Your task to perform on an android device: see creations saved in the google photos Image 0: 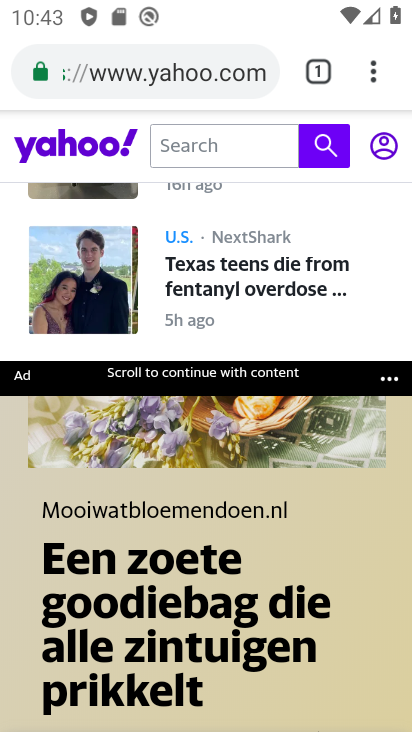
Step 0: press home button
Your task to perform on an android device: see creations saved in the google photos Image 1: 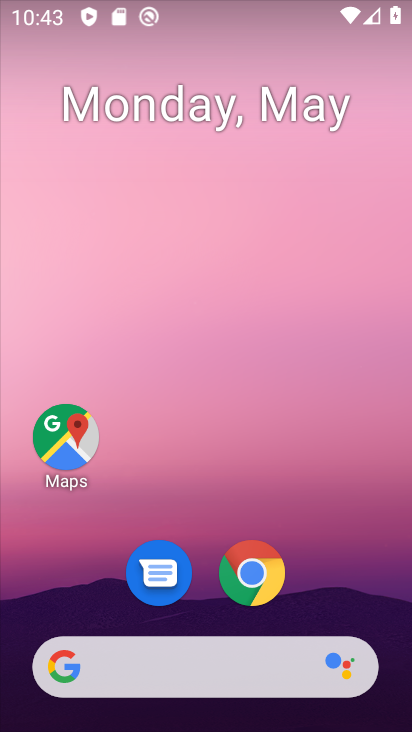
Step 1: drag from (246, 619) to (261, 369)
Your task to perform on an android device: see creations saved in the google photos Image 2: 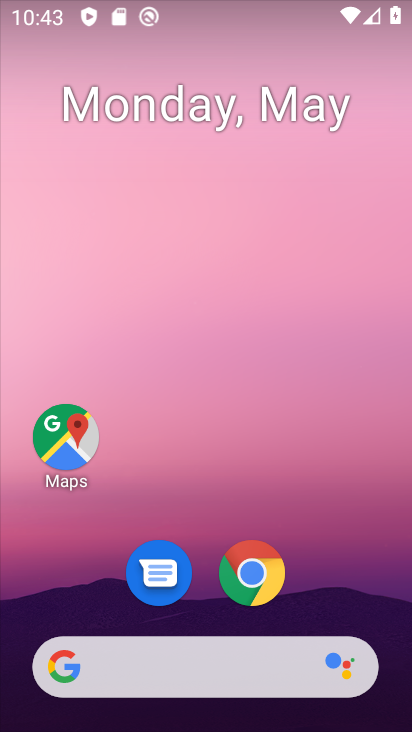
Step 2: drag from (189, 641) to (222, 359)
Your task to perform on an android device: see creations saved in the google photos Image 3: 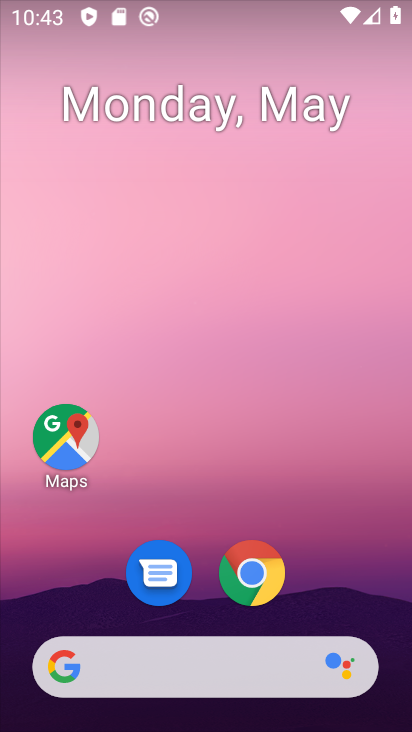
Step 3: drag from (204, 620) to (204, 266)
Your task to perform on an android device: see creations saved in the google photos Image 4: 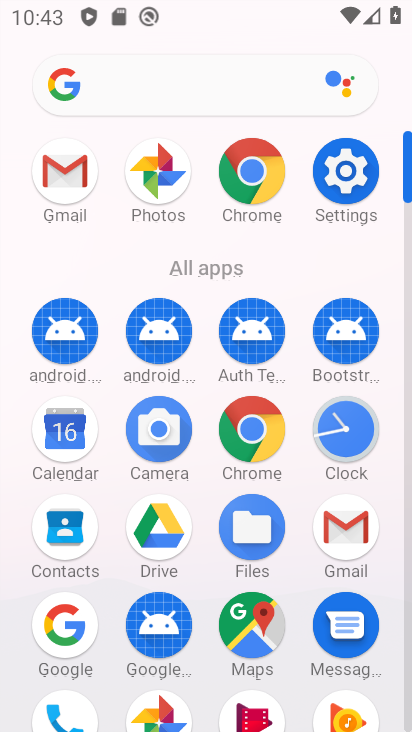
Step 4: click (167, 179)
Your task to perform on an android device: see creations saved in the google photos Image 5: 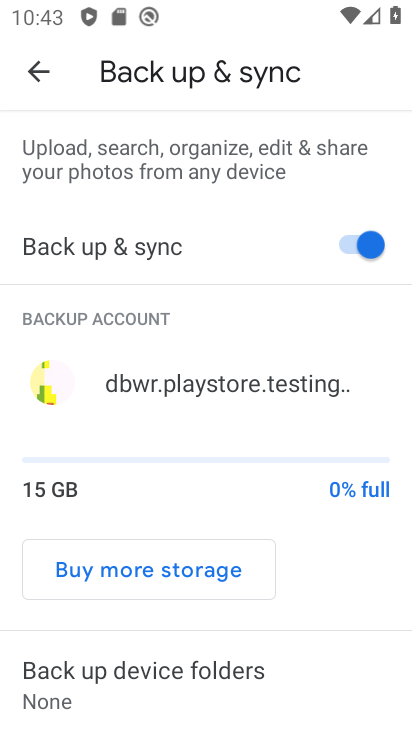
Step 5: click (35, 67)
Your task to perform on an android device: see creations saved in the google photos Image 6: 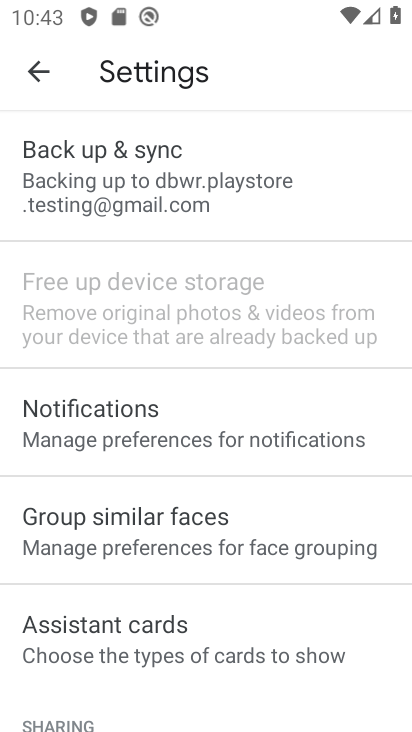
Step 6: press back button
Your task to perform on an android device: see creations saved in the google photos Image 7: 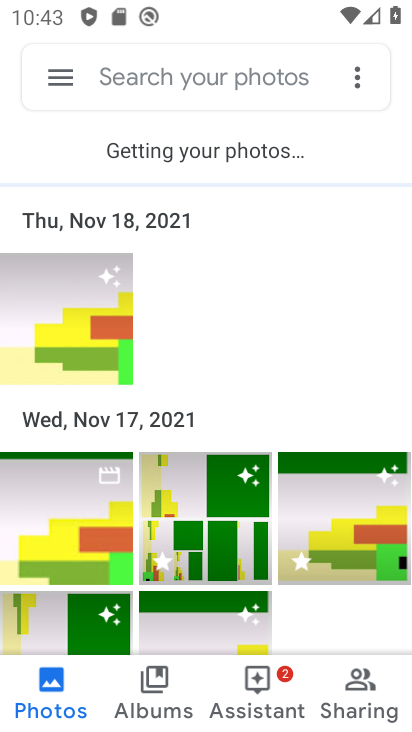
Step 7: click (164, 671)
Your task to perform on an android device: see creations saved in the google photos Image 8: 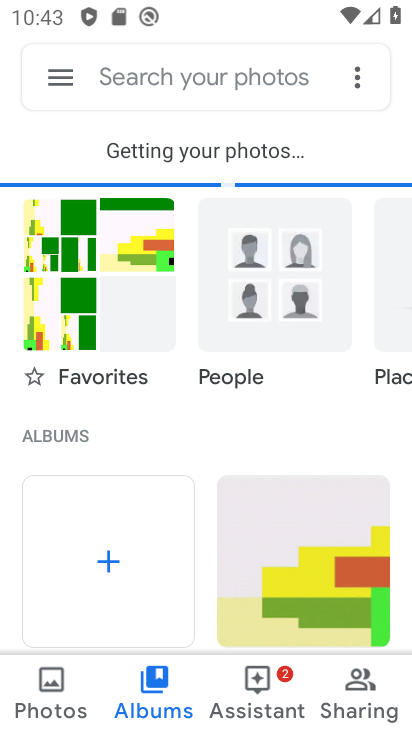
Step 8: task complete